Your task to perform on an android device: refresh tabs in the chrome app Image 0: 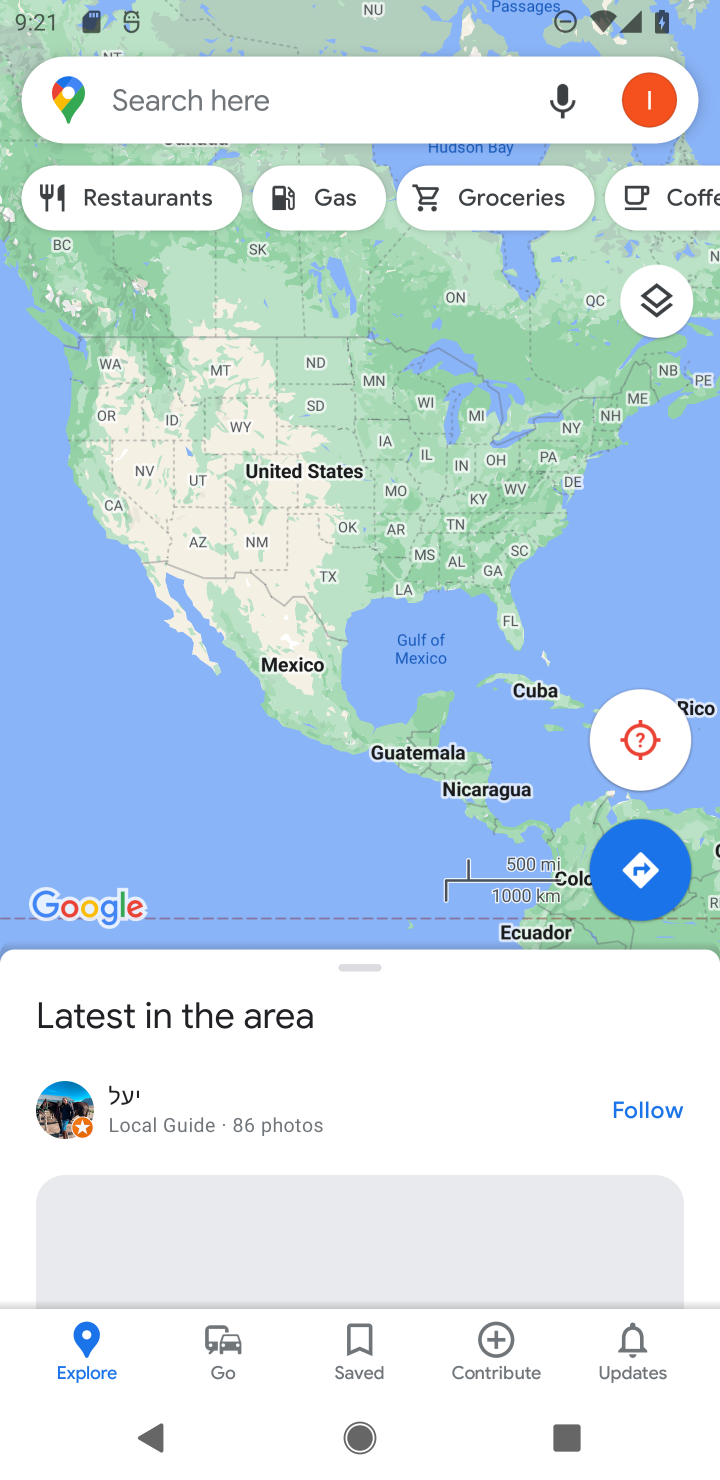
Step 0: press home button
Your task to perform on an android device: refresh tabs in the chrome app Image 1: 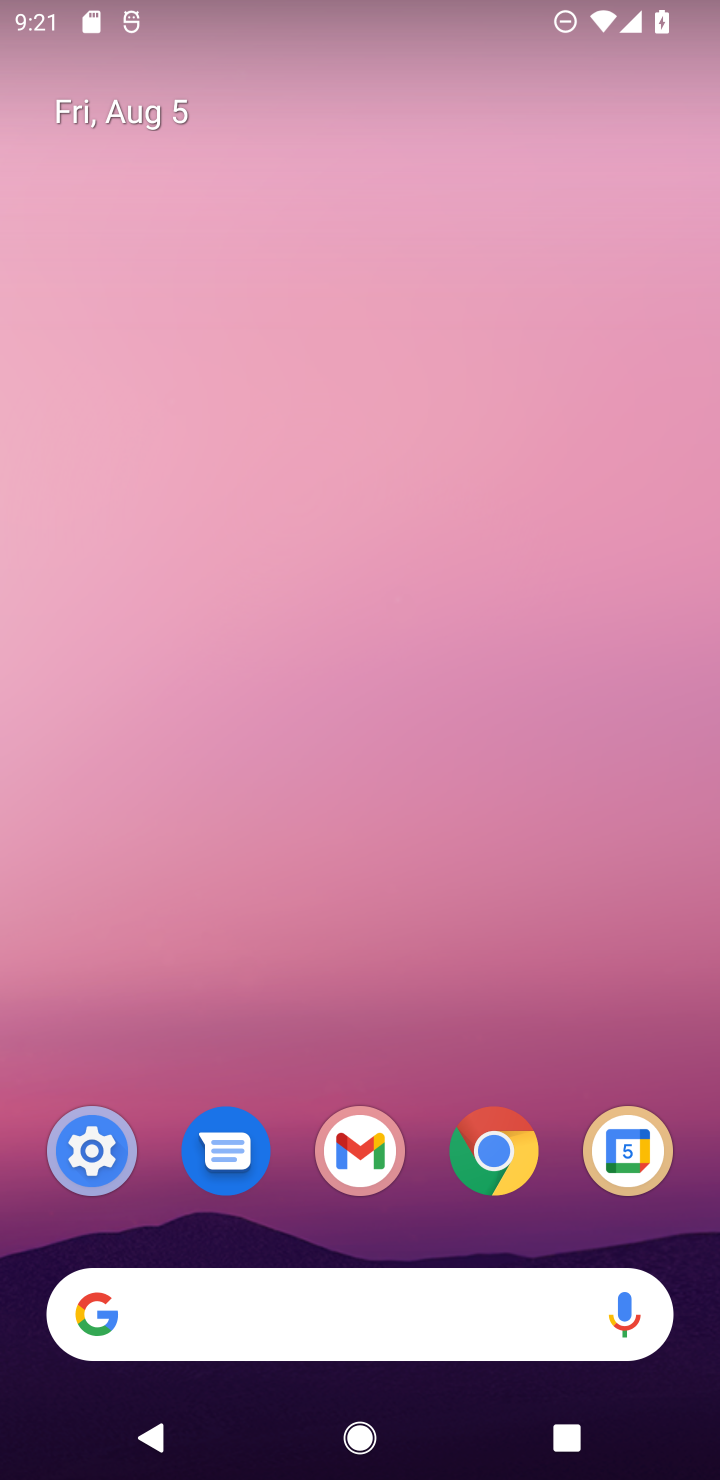
Step 1: click (505, 1148)
Your task to perform on an android device: refresh tabs in the chrome app Image 2: 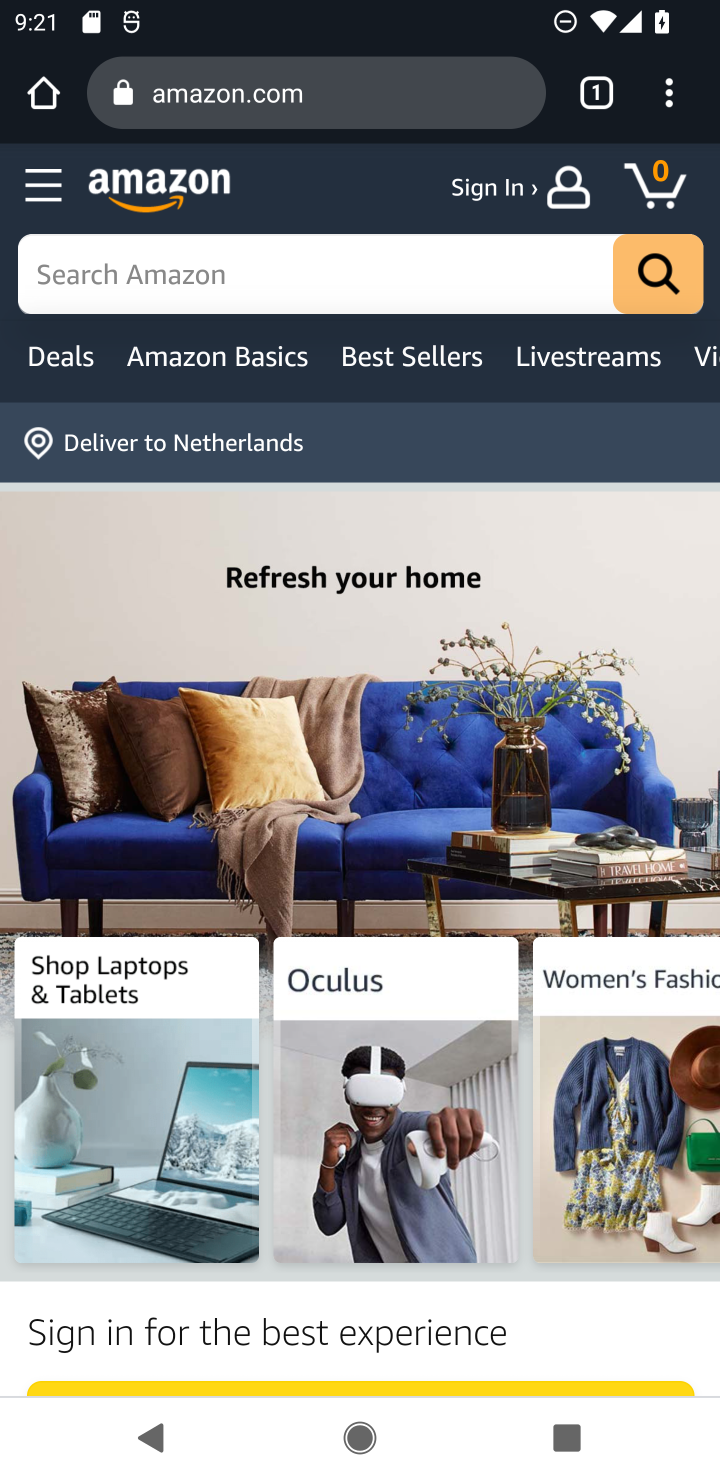
Step 2: click (672, 101)
Your task to perform on an android device: refresh tabs in the chrome app Image 3: 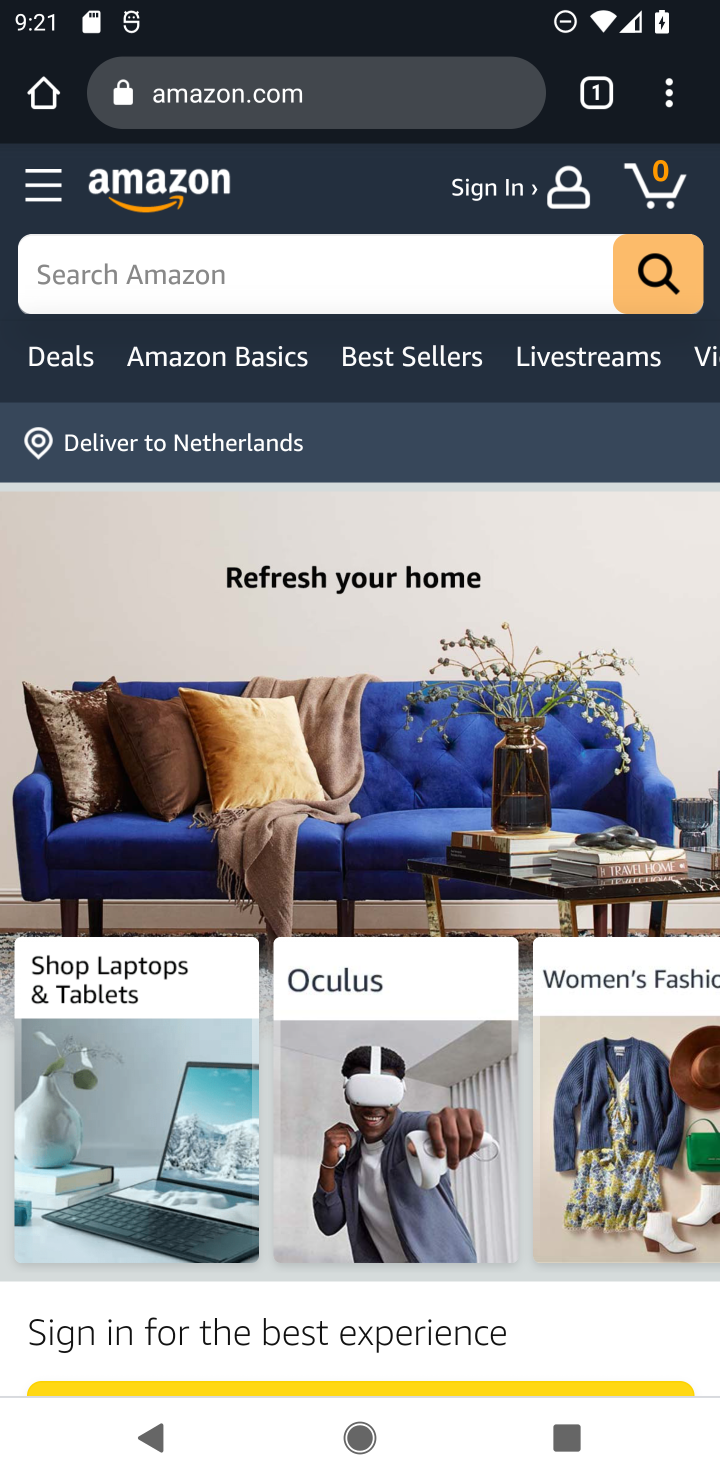
Step 3: click (672, 101)
Your task to perform on an android device: refresh tabs in the chrome app Image 4: 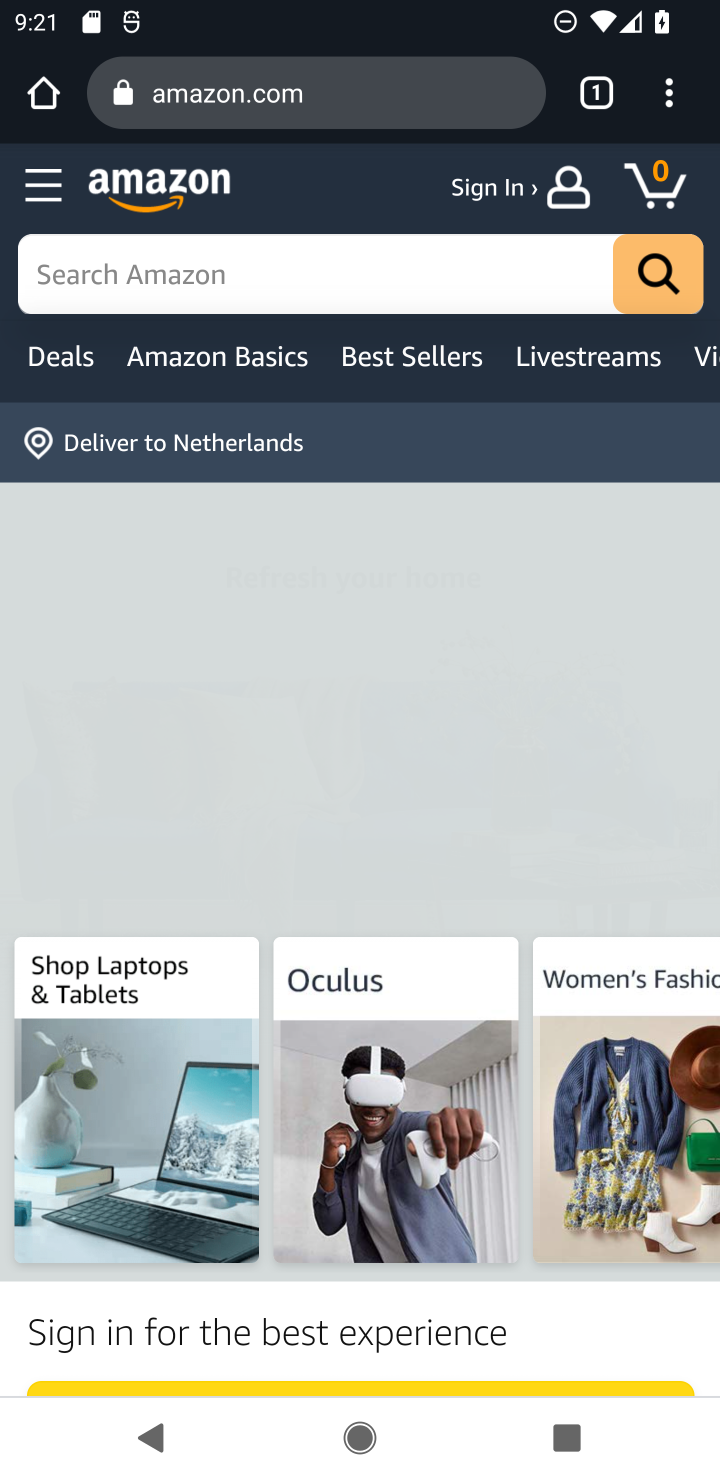
Step 4: click (666, 101)
Your task to perform on an android device: refresh tabs in the chrome app Image 5: 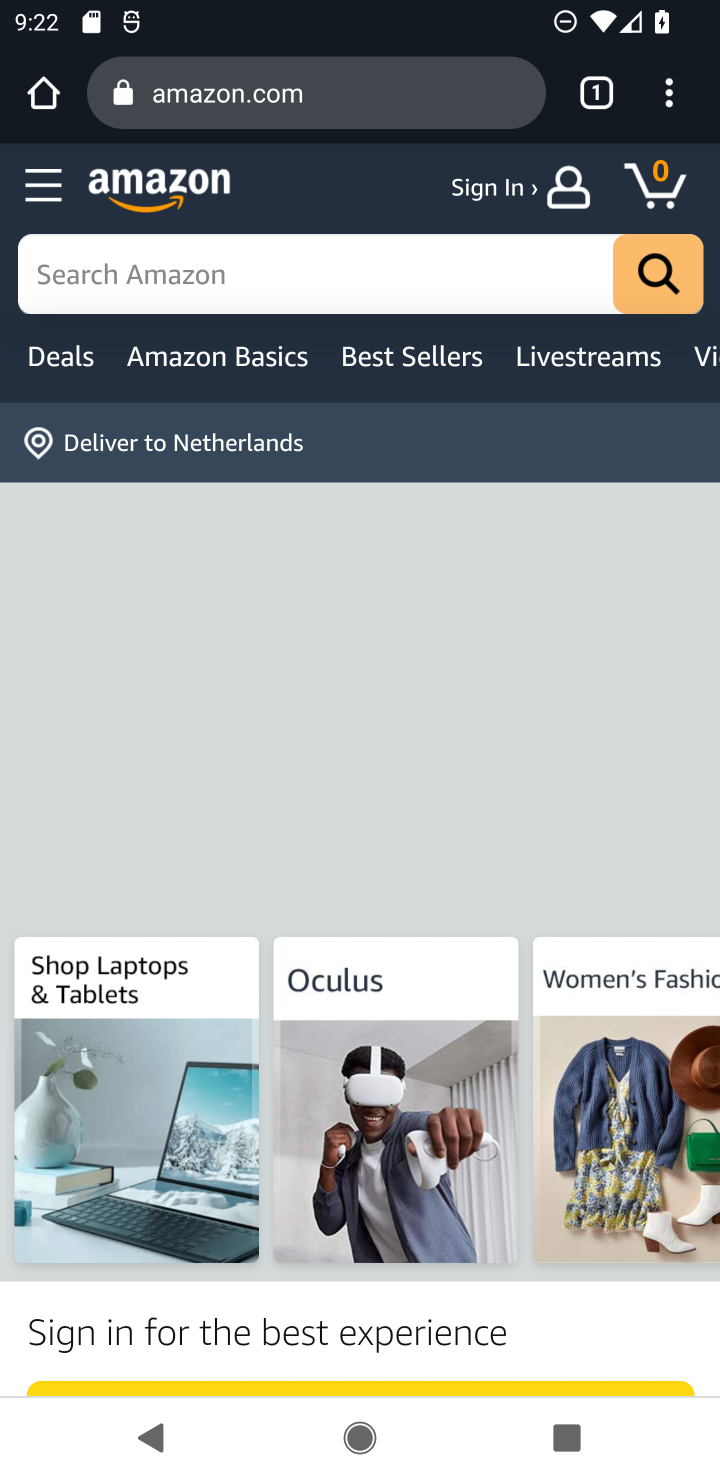
Step 5: click (673, 103)
Your task to perform on an android device: refresh tabs in the chrome app Image 6: 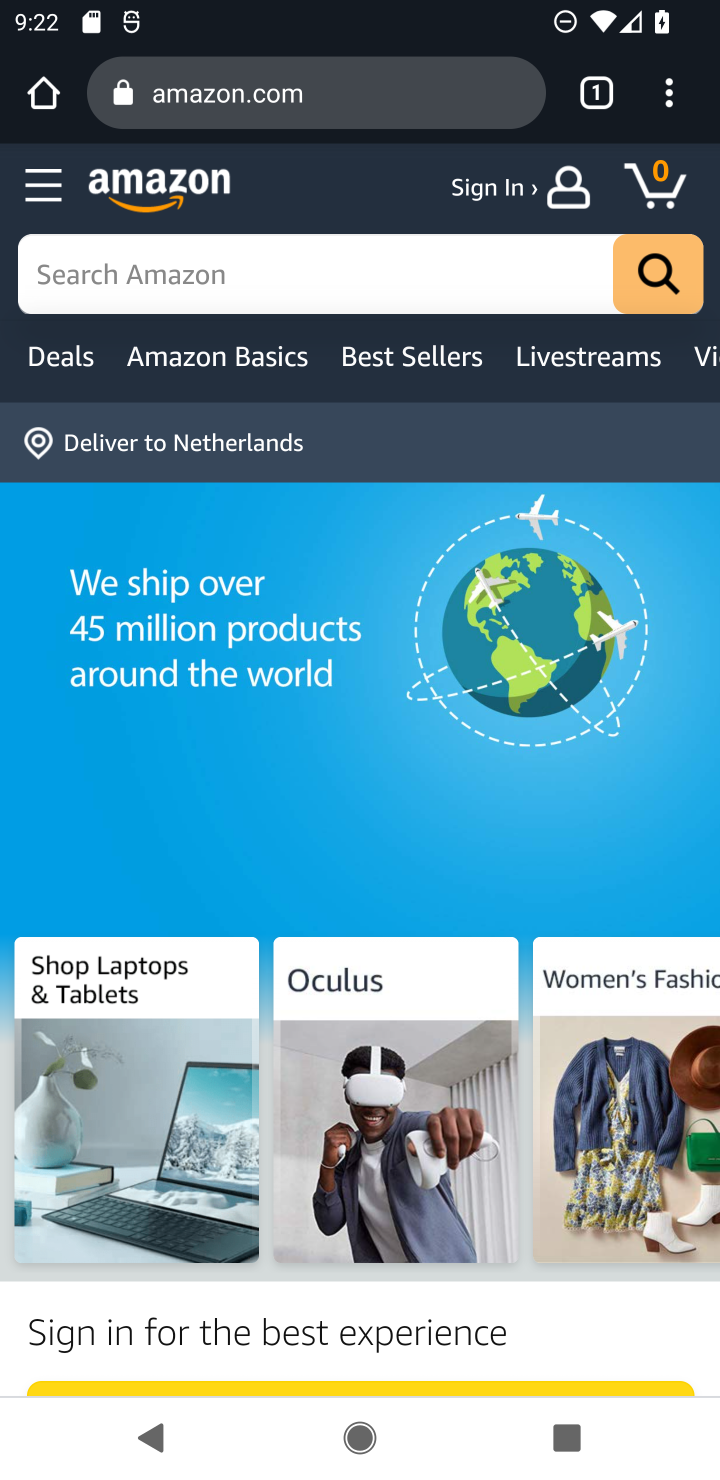
Step 6: click (673, 103)
Your task to perform on an android device: refresh tabs in the chrome app Image 7: 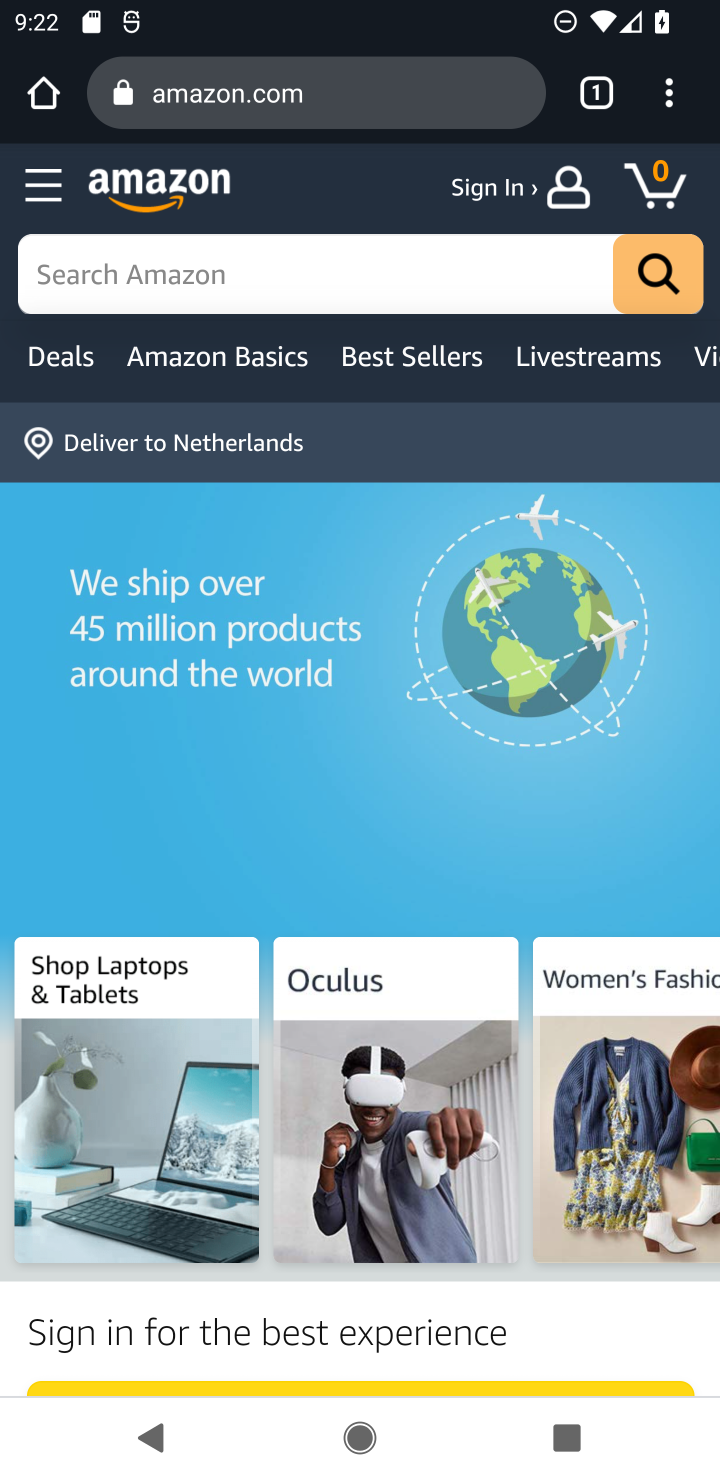
Step 7: task complete